Your task to perform on an android device: check data usage Image 0: 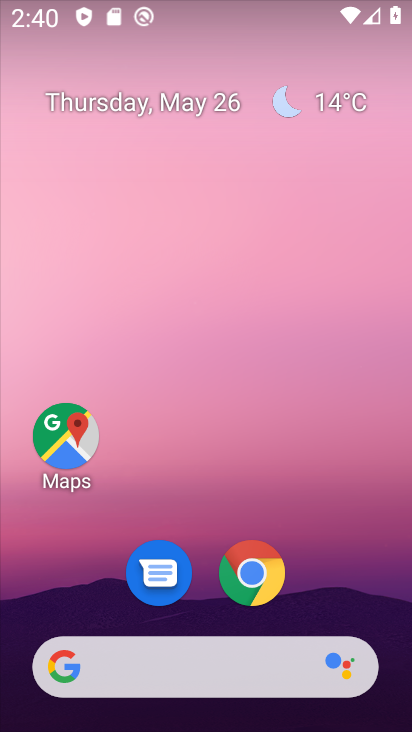
Step 0: drag from (338, 548) to (245, 22)
Your task to perform on an android device: check data usage Image 1: 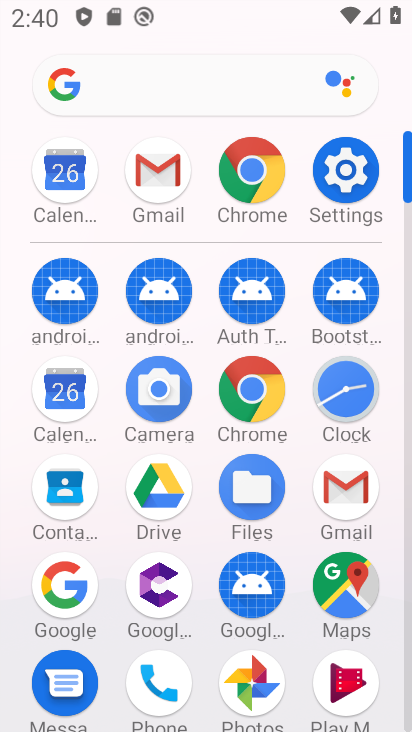
Step 1: click (346, 165)
Your task to perform on an android device: check data usage Image 2: 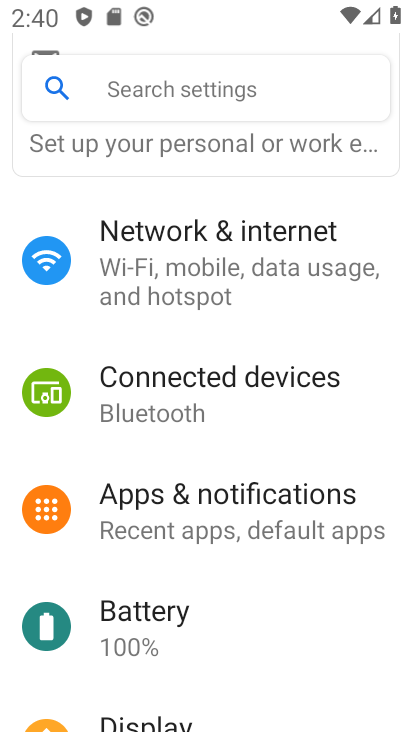
Step 2: drag from (318, 222) to (294, 405)
Your task to perform on an android device: check data usage Image 3: 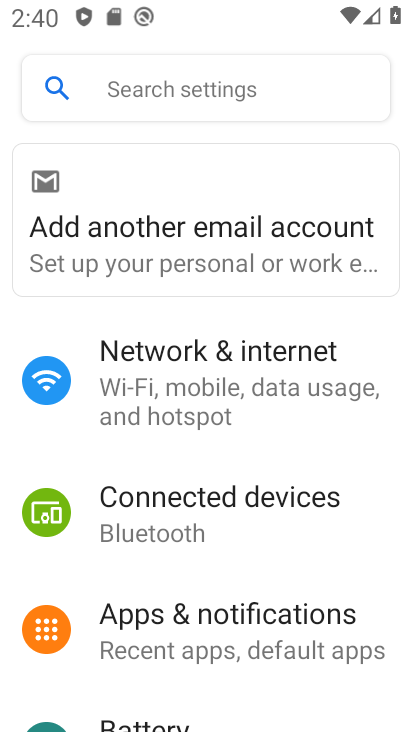
Step 3: click (259, 406)
Your task to perform on an android device: check data usage Image 4: 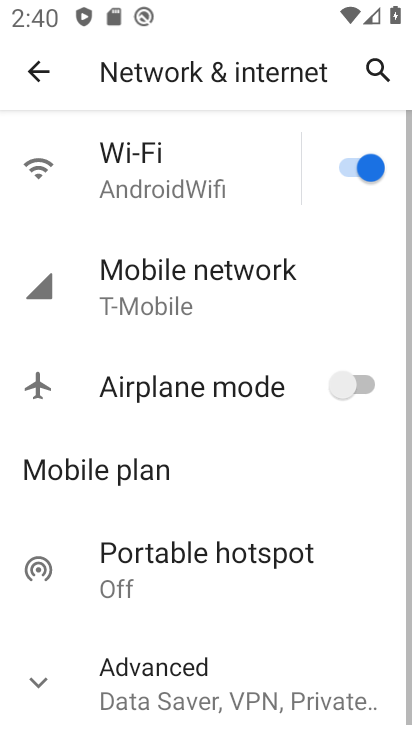
Step 4: click (181, 270)
Your task to perform on an android device: check data usage Image 5: 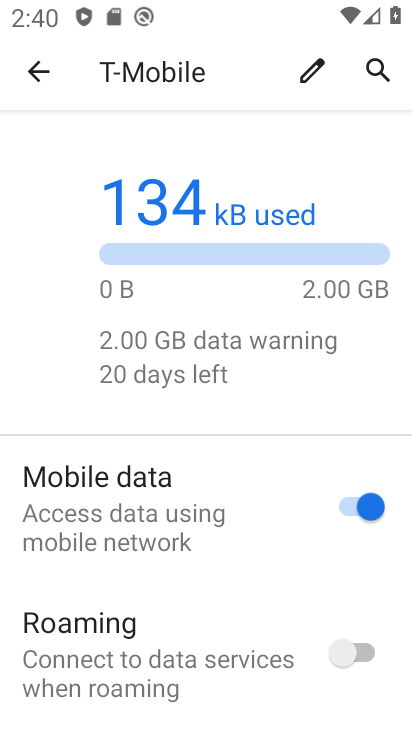
Step 5: task complete